Your task to perform on an android device: check out phone information Image 0: 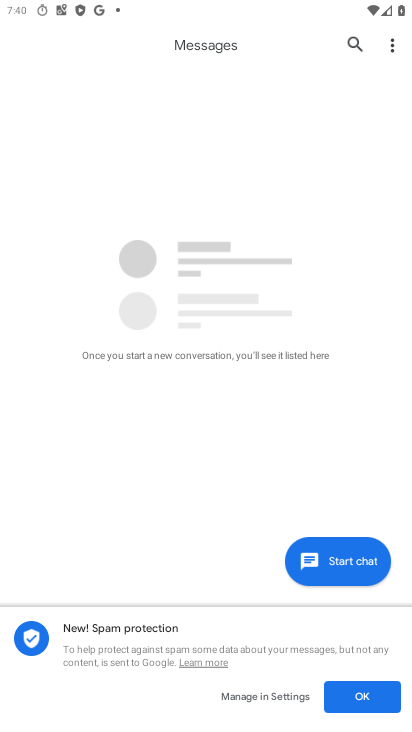
Step 0: press home button
Your task to perform on an android device: check out phone information Image 1: 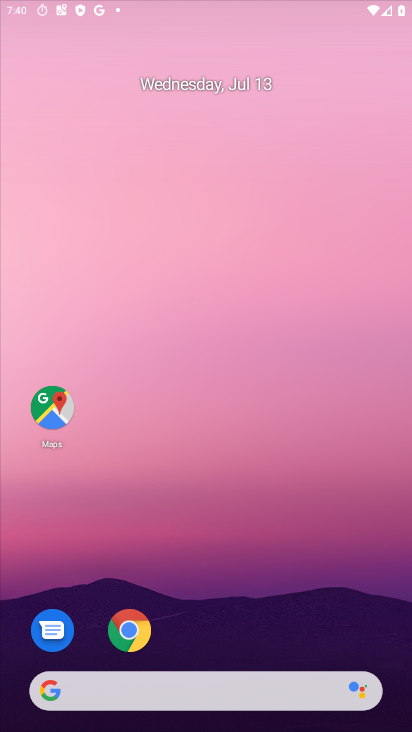
Step 1: drag from (358, 662) to (226, 16)
Your task to perform on an android device: check out phone information Image 2: 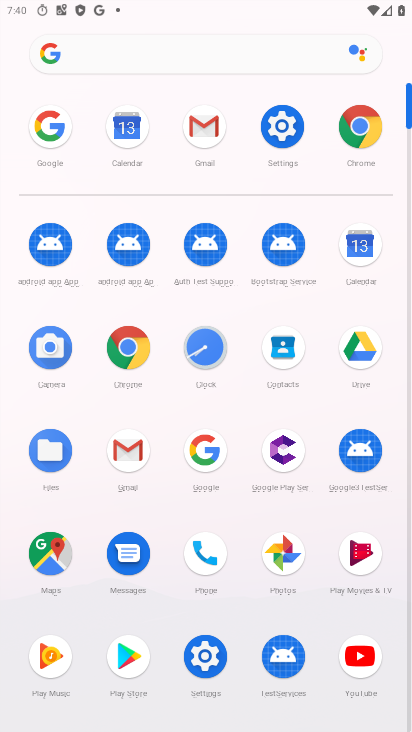
Step 2: click (265, 131)
Your task to perform on an android device: check out phone information Image 3: 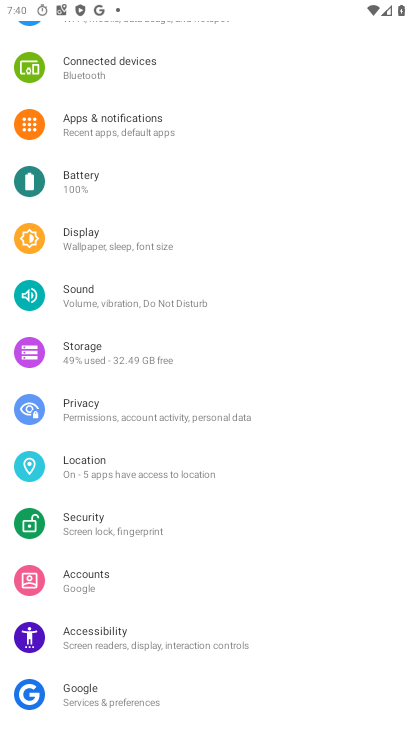
Step 3: task complete